Your task to perform on an android device: Open the stopwatch Image 0: 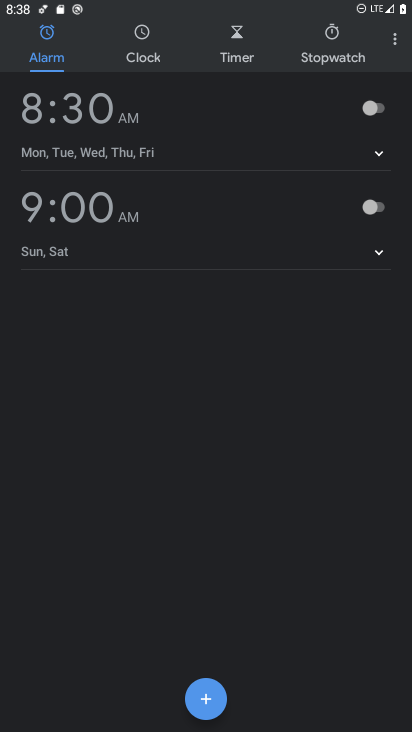
Step 0: click (342, 51)
Your task to perform on an android device: Open the stopwatch Image 1: 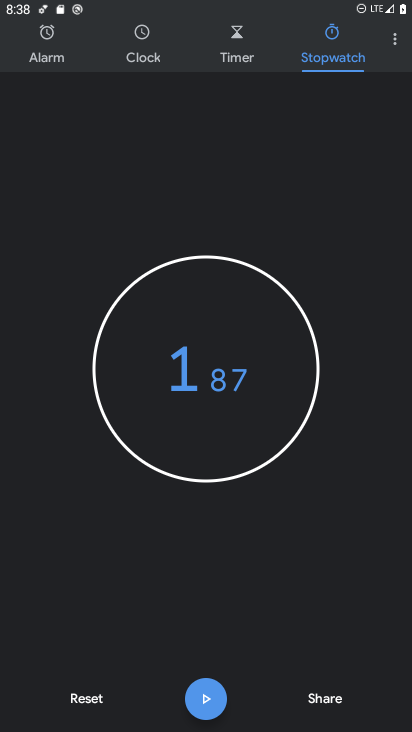
Step 1: click (210, 714)
Your task to perform on an android device: Open the stopwatch Image 2: 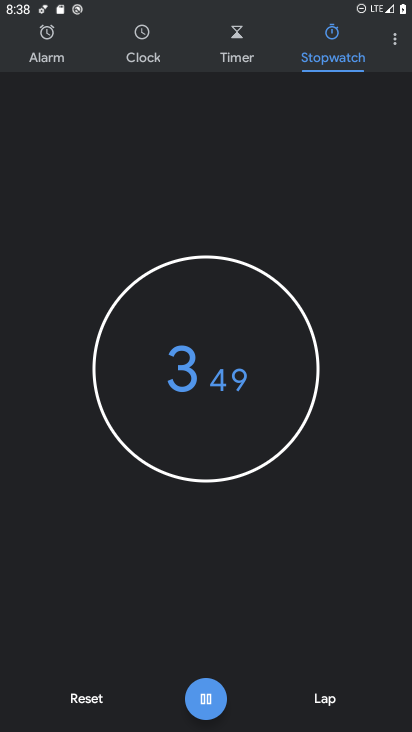
Step 2: click (201, 671)
Your task to perform on an android device: Open the stopwatch Image 3: 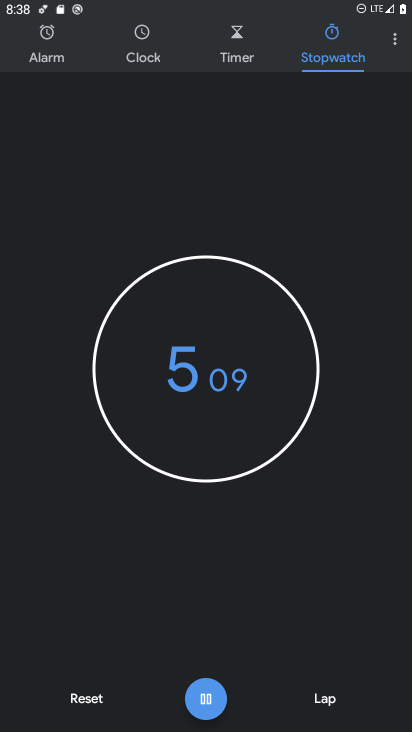
Step 3: click (208, 689)
Your task to perform on an android device: Open the stopwatch Image 4: 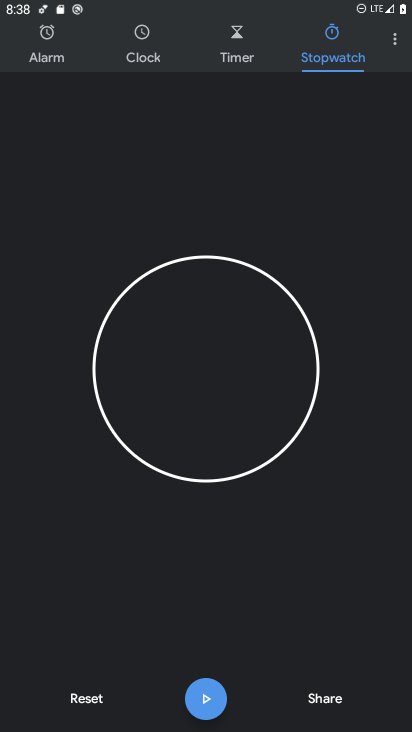
Step 4: click (225, 392)
Your task to perform on an android device: Open the stopwatch Image 5: 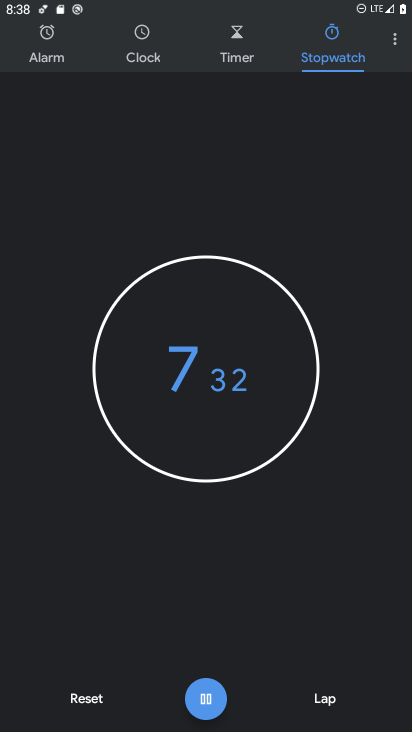
Step 5: click (206, 704)
Your task to perform on an android device: Open the stopwatch Image 6: 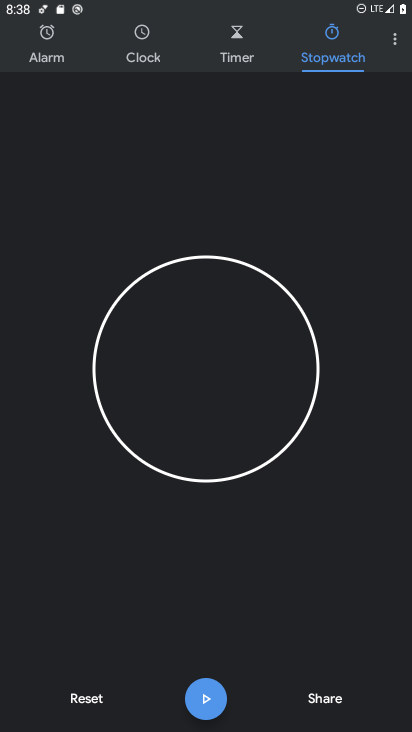
Step 6: task complete